Your task to perform on an android device: What is the recent news? Image 0: 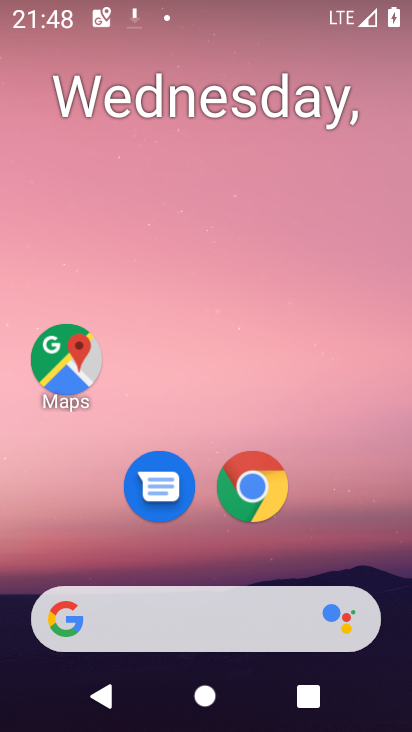
Step 0: click (165, 605)
Your task to perform on an android device: What is the recent news? Image 1: 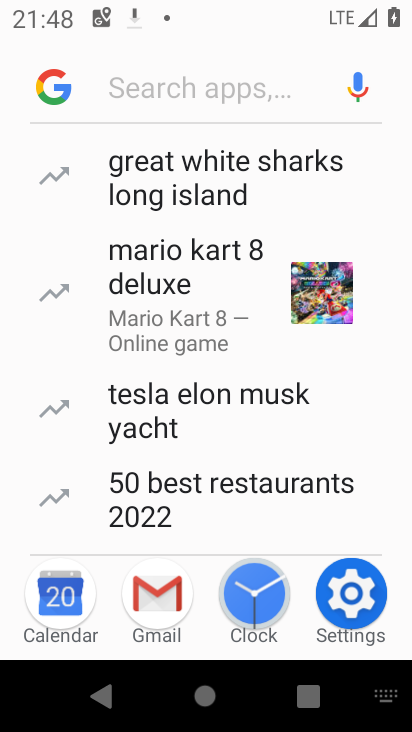
Step 1: click (152, 89)
Your task to perform on an android device: What is the recent news? Image 2: 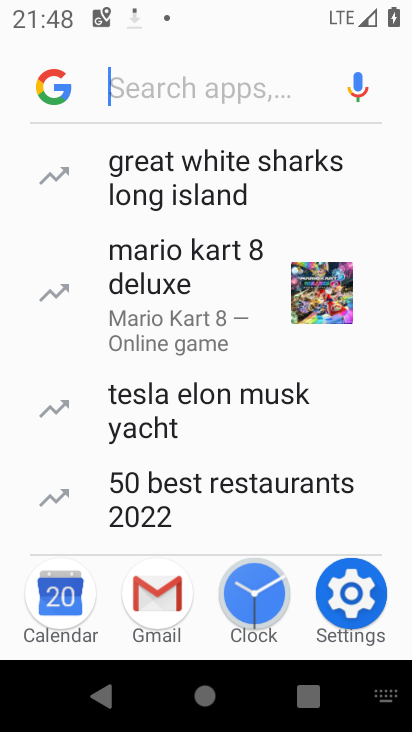
Step 2: type "recent news"
Your task to perform on an android device: What is the recent news? Image 3: 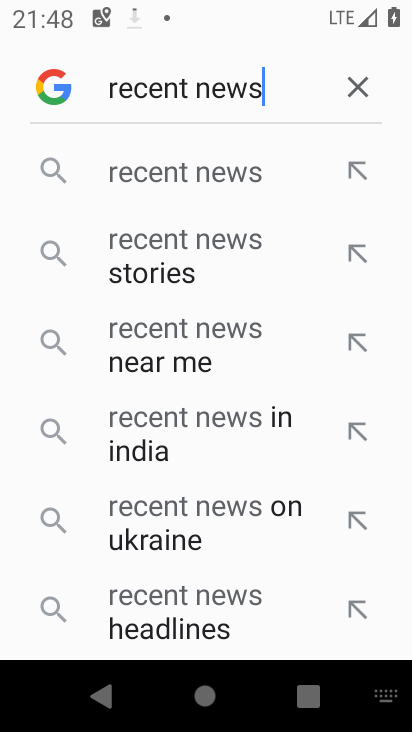
Step 3: click (179, 160)
Your task to perform on an android device: What is the recent news? Image 4: 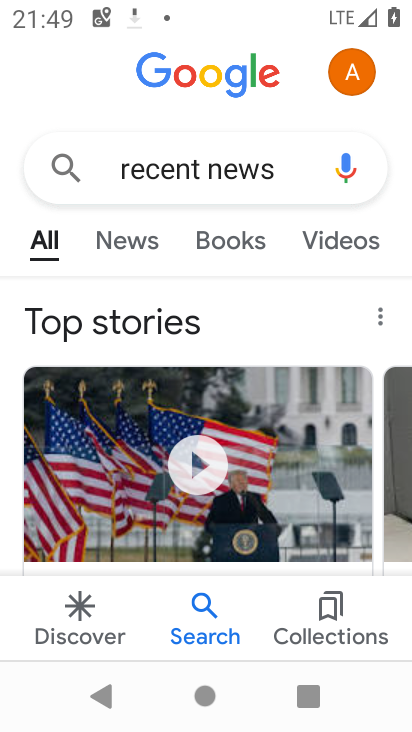
Step 4: task complete